Your task to perform on an android device: set the stopwatch Image 0: 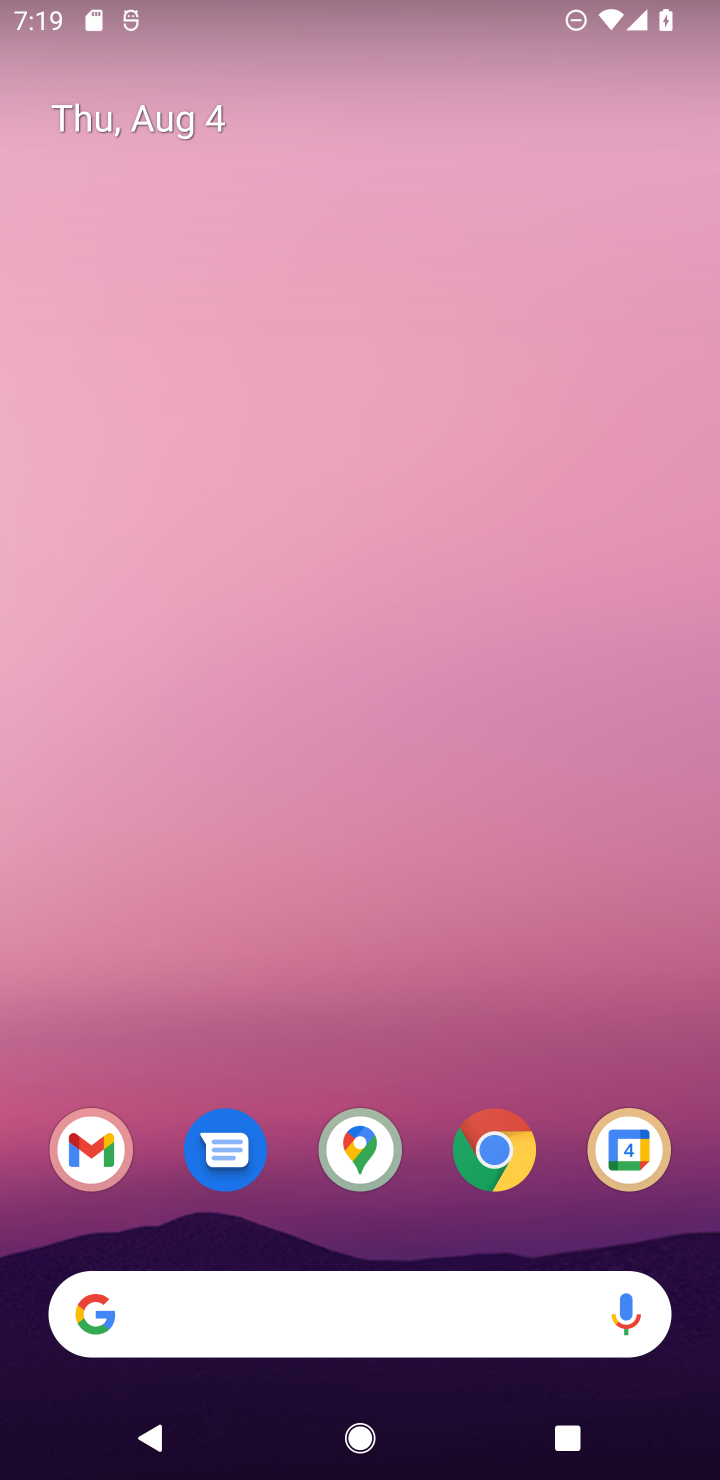
Step 0: drag from (404, 1302) to (624, 26)
Your task to perform on an android device: set the stopwatch Image 1: 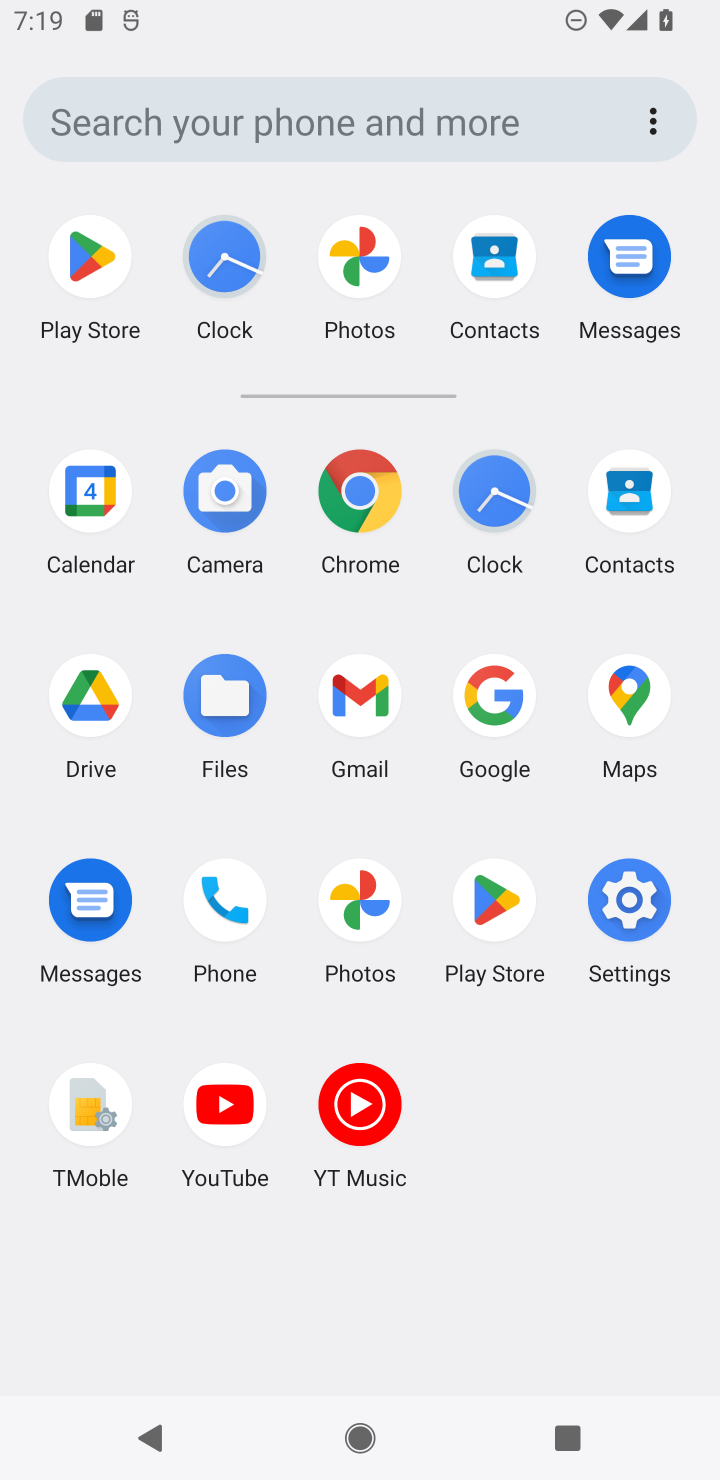
Step 1: click (498, 481)
Your task to perform on an android device: set the stopwatch Image 2: 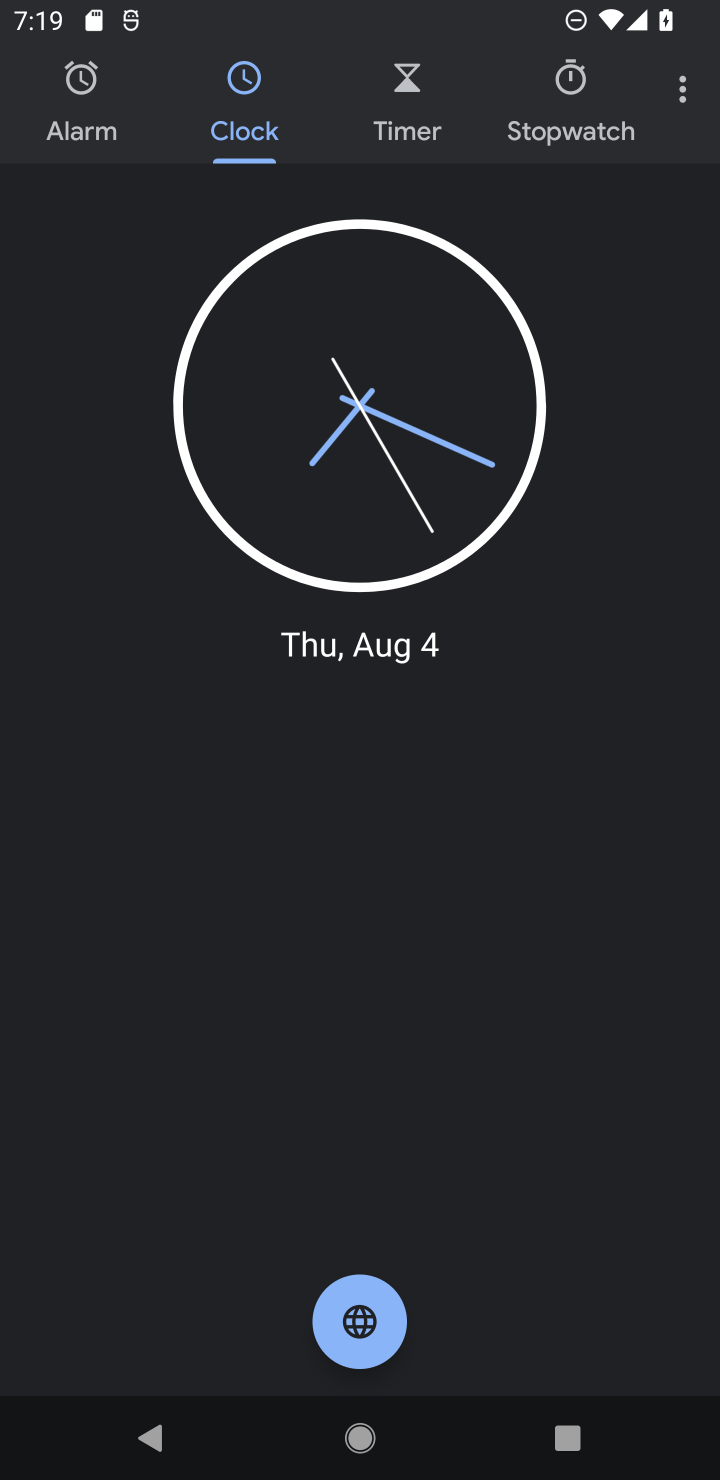
Step 2: click (556, 126)
Your task to perform on an android device: set the stopwatch Image 3: 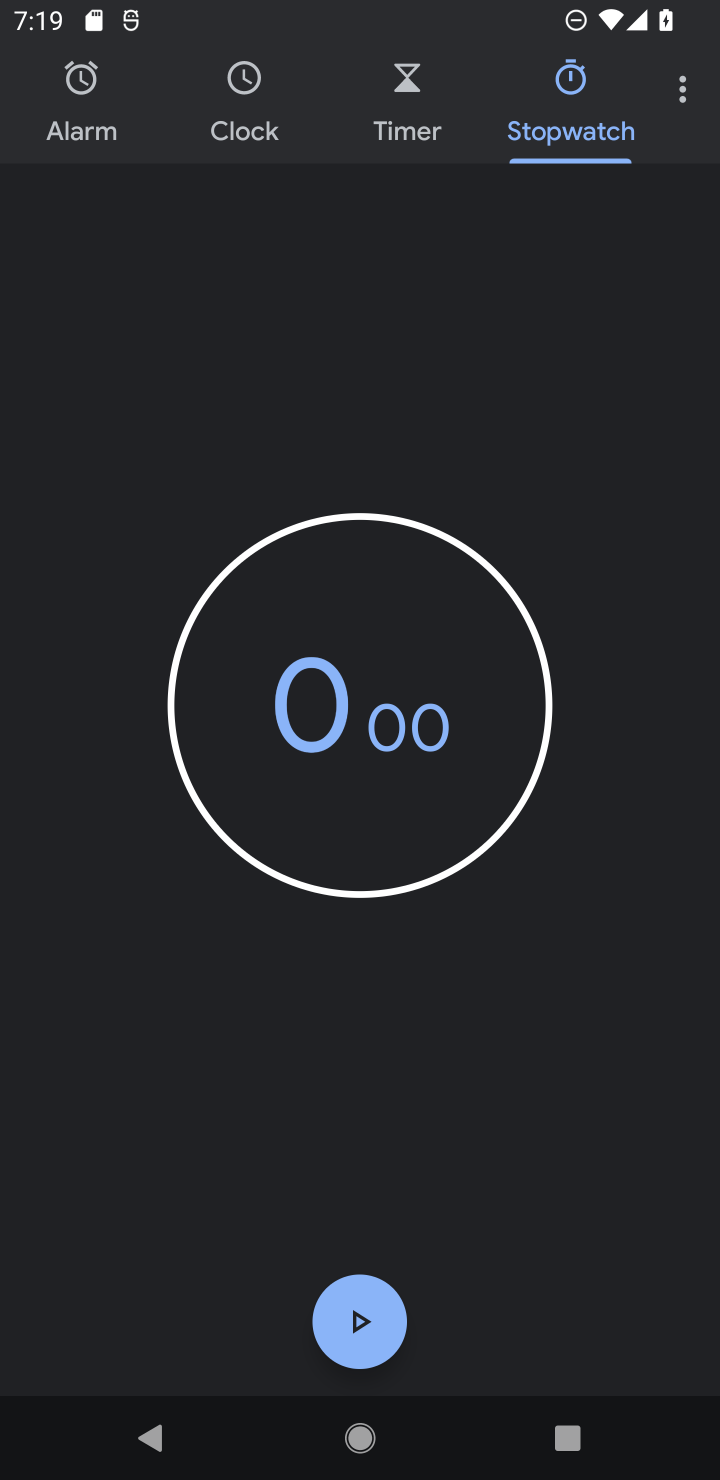
Step 3: click (380, 1337)
Your task to perform on an android device: set the stopwatch Image 4: 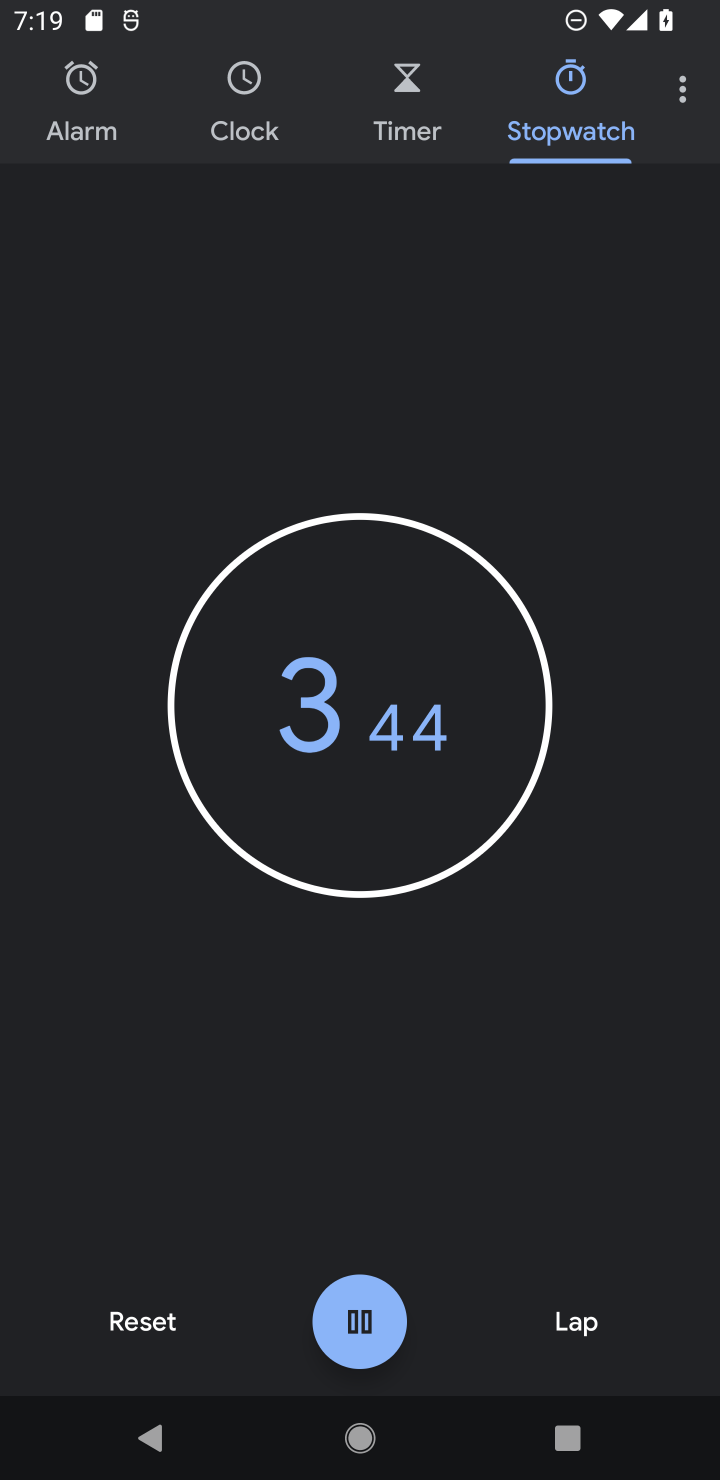
Step 4: task complete